Your task to perform on an android device: allow cookies in the chrome app Image 0: 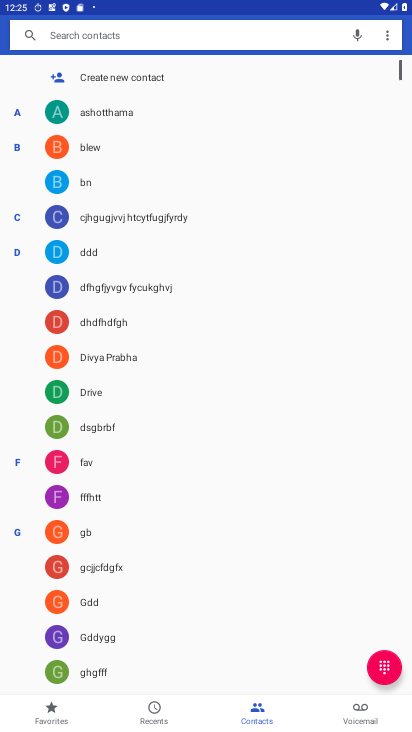
Step 0: press home button
Your task to perform on an android device: allow cookies in the chrome app Image 1: 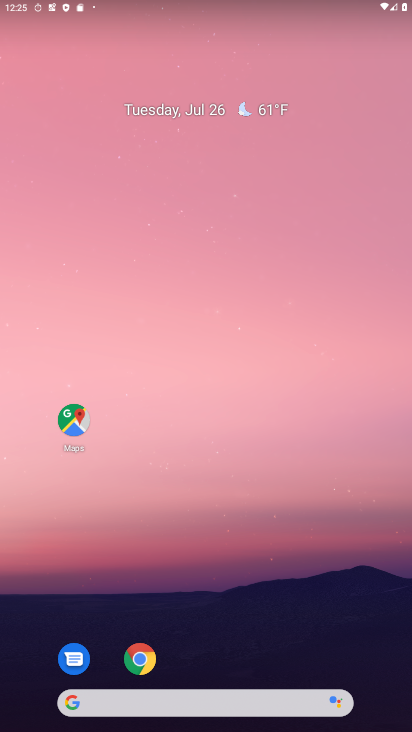
Step 1: click (149, 654)
Your task to perform on an android device: allow cookies in the chrome app Image 2: 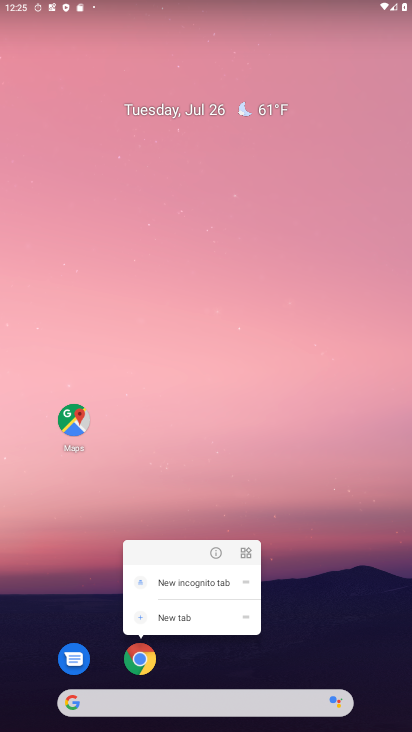
Step 2: click (136, 651)
Your task to perform on an android device: allow cookies in the chrome app Image 3: 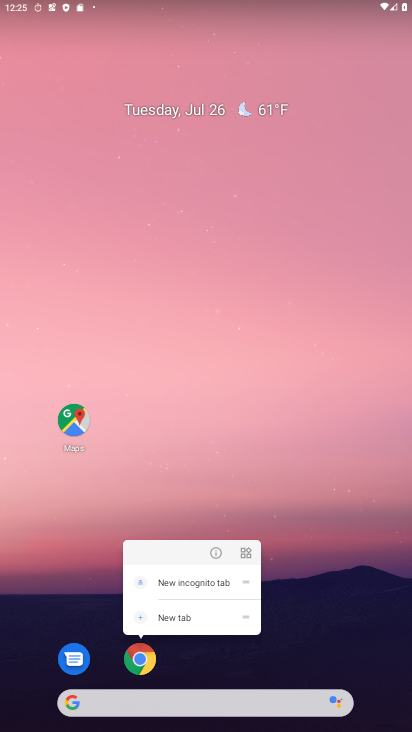
Step 3: click (130, 658)
Your task to perform on an android device: allow cookies in the chrome app Image 4: 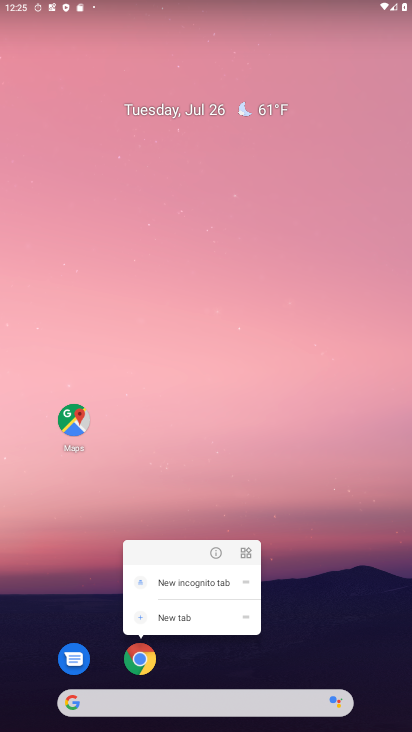
Step 4: click (135, 651)
Your task to perform on an android device: allow cookies in the chrome app Image 5: 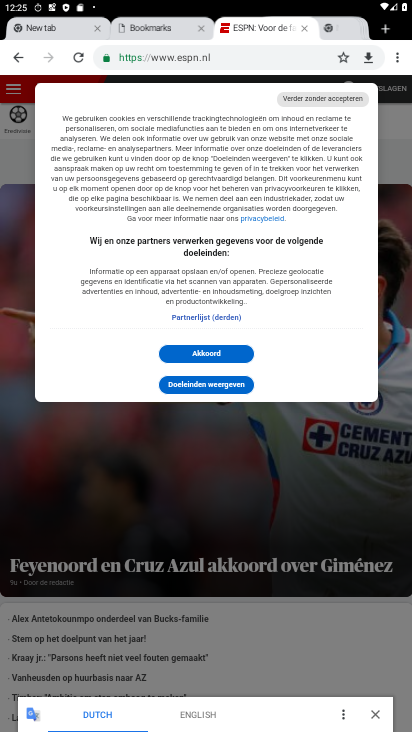
Step 5: click (399, 57)
Your task to perform on an android device: allow cookies in the chrome app Image 6: 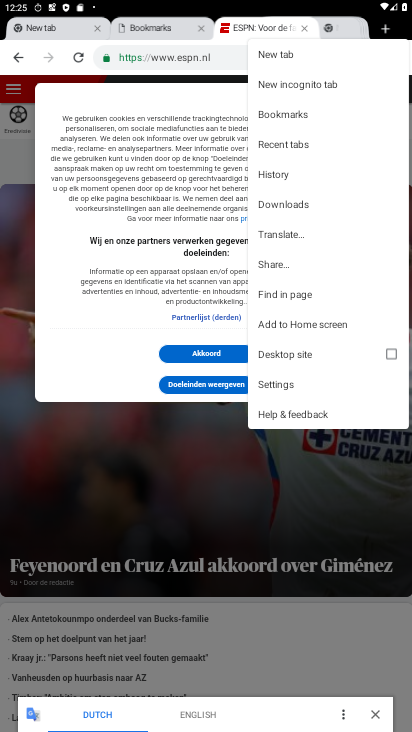
Step 6: click (267, 381)
Your task to perform on an android device: allow cookies in the chrome app Image 7: 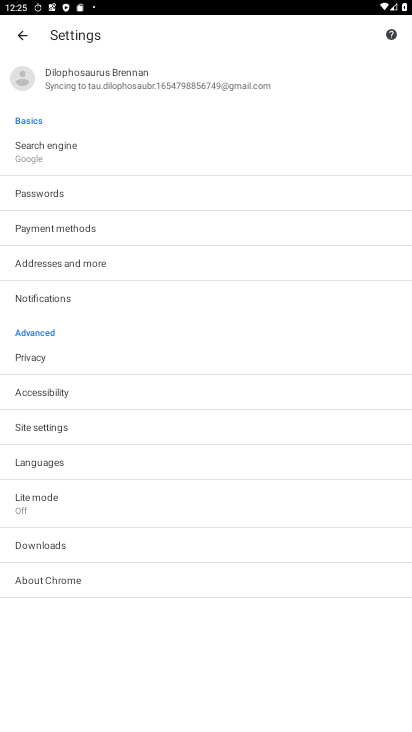
Step 7: click (42, 430)
Your task to perform on an android device: allow cookies in the chrome app Image 8: 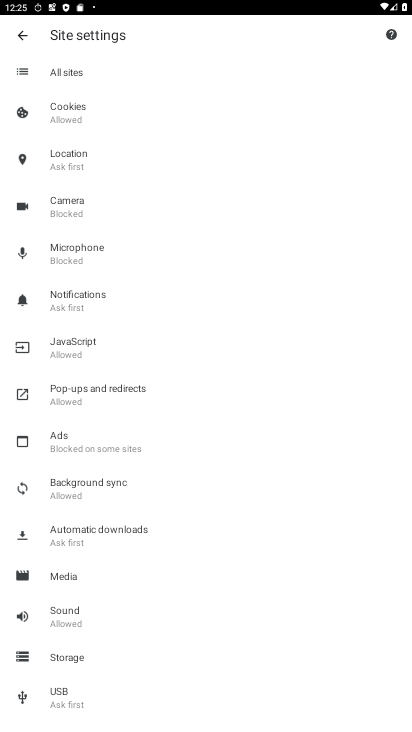
Step 8: click (74, 117)
Your task to perform on an android device: allow cookies in the chrome app Image 9: 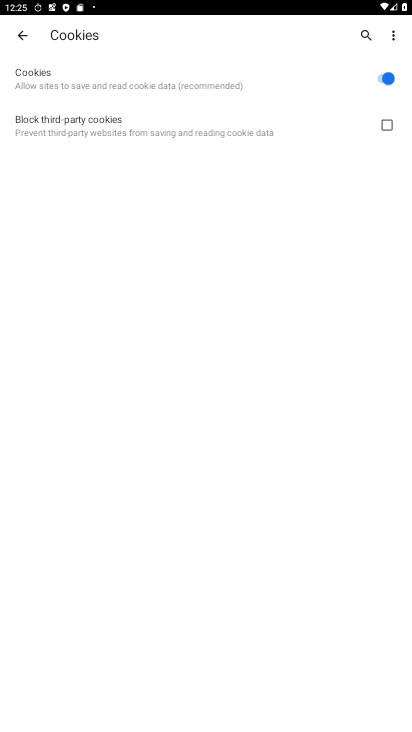
Step 9: task complete